Your task to perform on an android device: set an alarm Image 0: 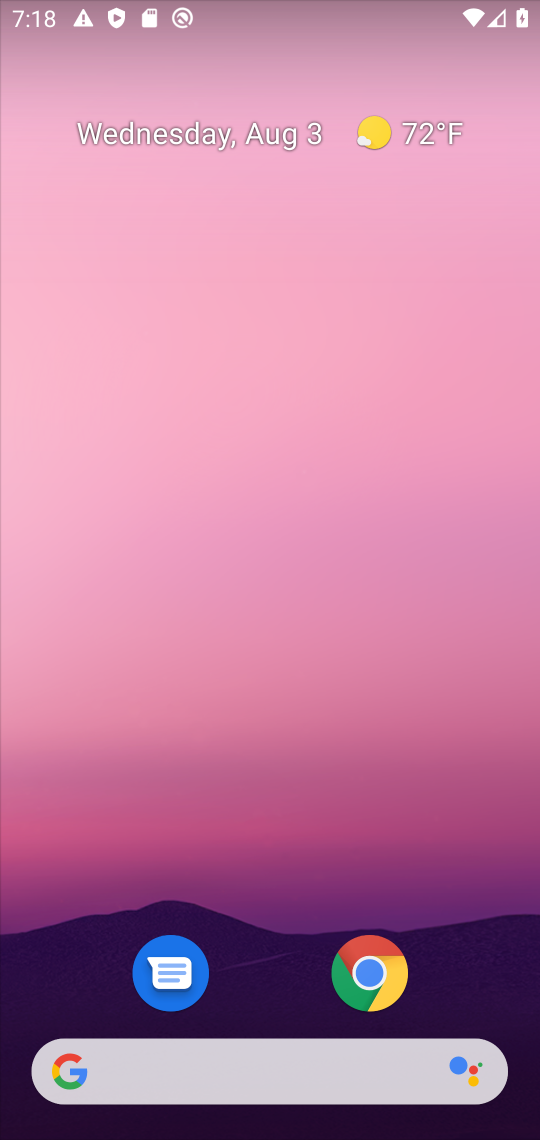
Step 0: drag from (284, 901) to (196, 154)
Your task to perform on an android device: set an alarm Image 1: 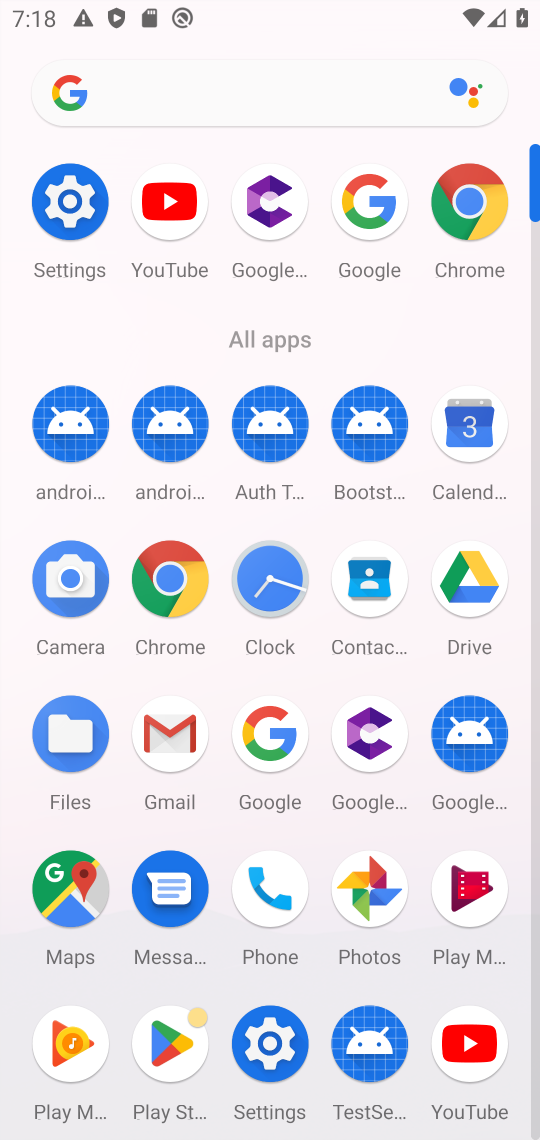
Step 1: click (276, 585)
Your task to perform on an android device: set an alarm Image 2: 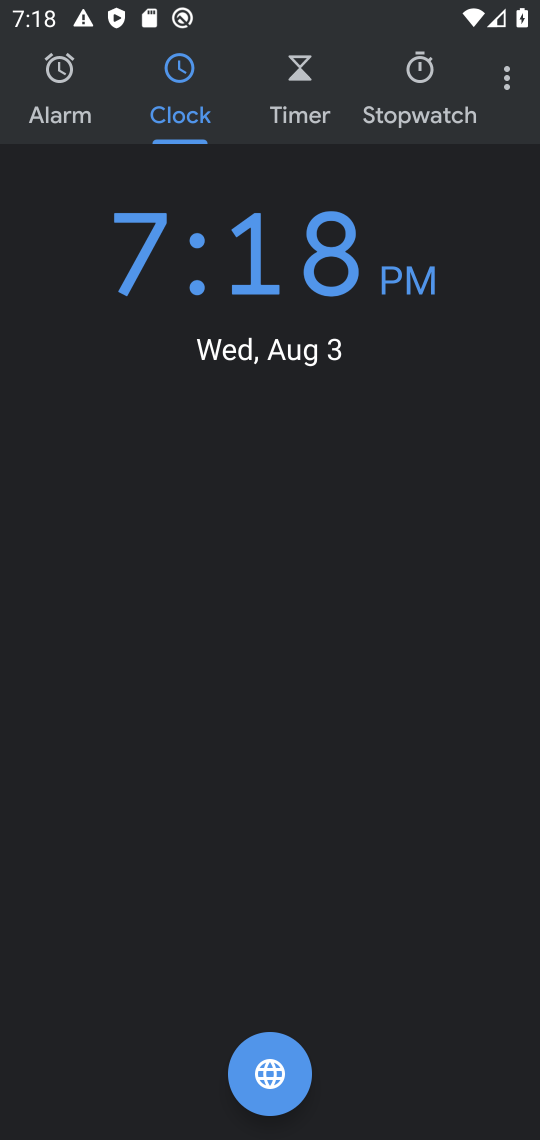
Step 2: click (512, 85)
Your task to perform on an android device: set an alarm Image 3: 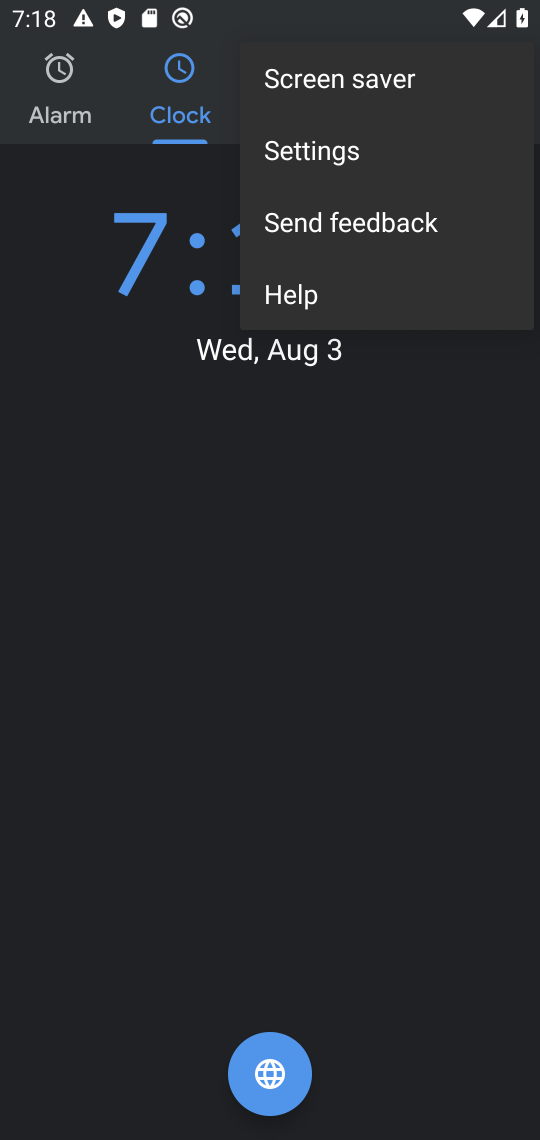
Step 3: click (26, 106)
Your task to perform on an android device: set an alarm Image 4: 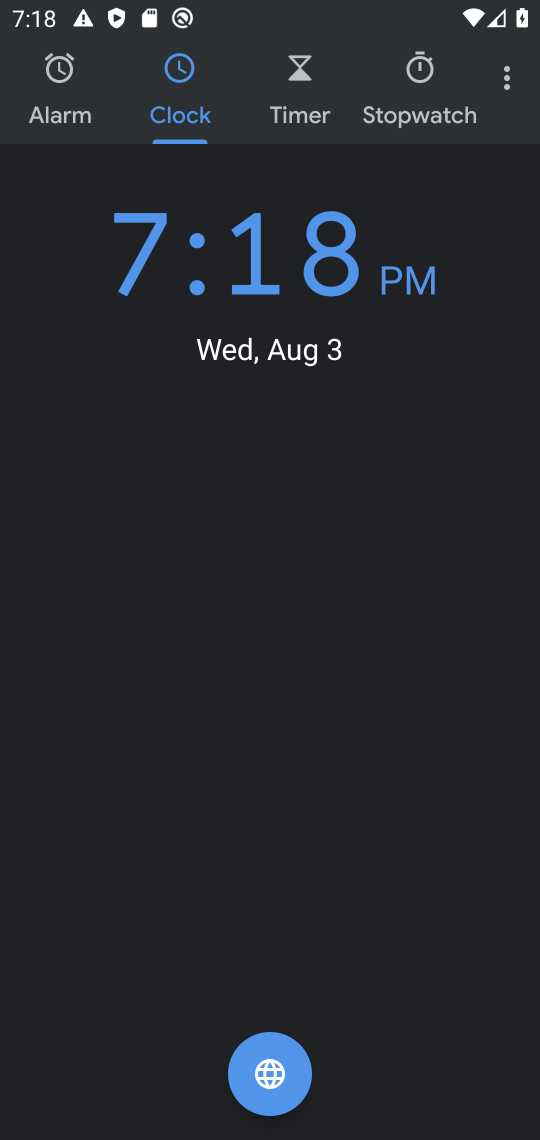
Step 4: click (47, 107)
Your task to perform on an android device: set an alarm Image 5: 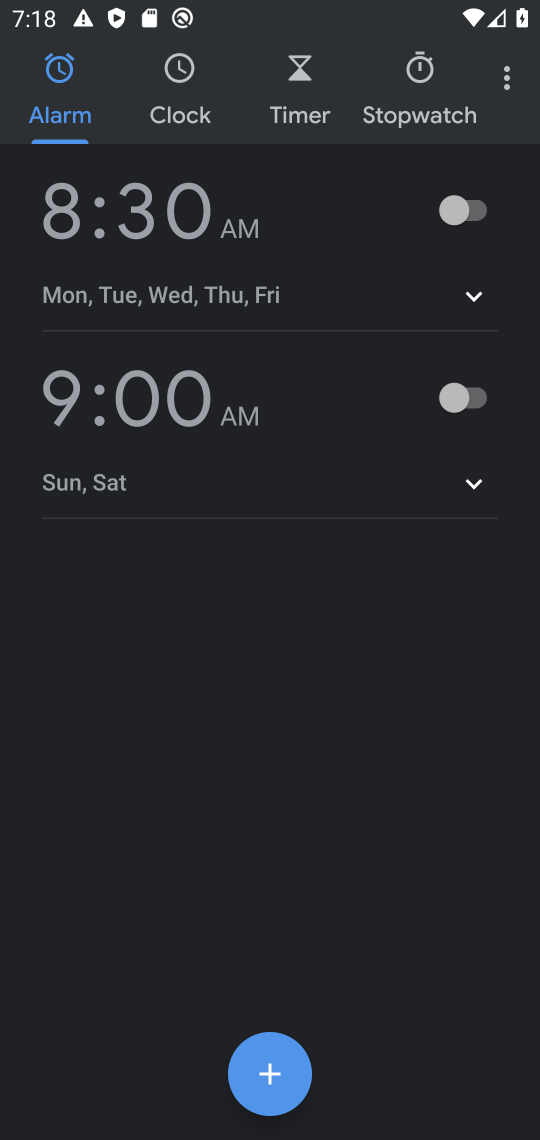
Step 5: click (478, 212)
Your task to perform on an android device: set an alarm Image 6: 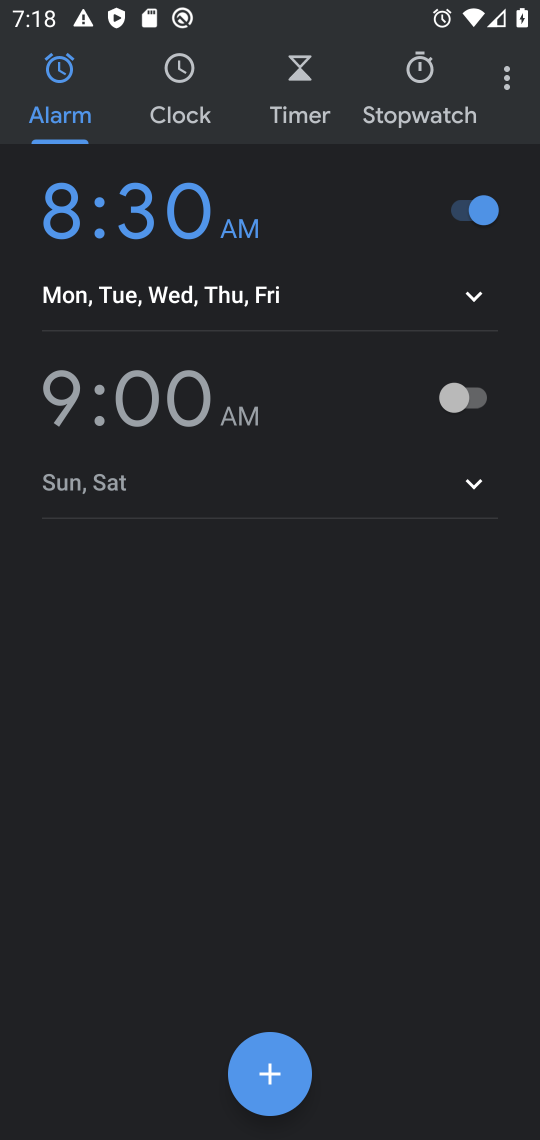
Step 6: task complete